Your task to perform on an android device: Go to Yahoo.com Image 0: 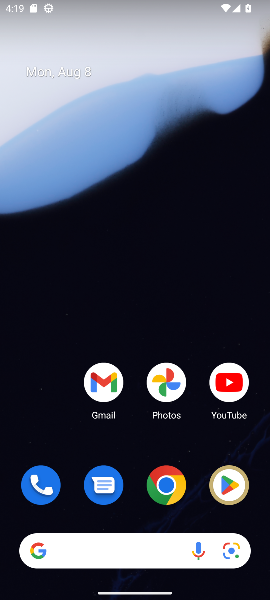
Step 0: drag from (134, 565) to (89, 249)
Your task to perform on an android device: Go to Yahoo.com Image 1: 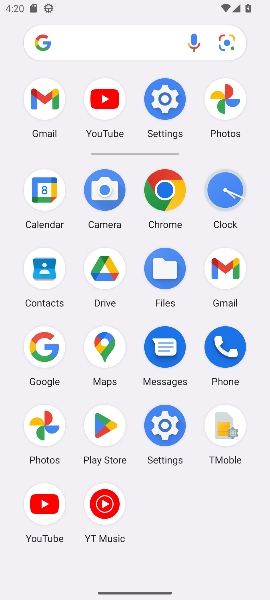
Step 1: click (167, 186)
Your task to perform on an android device: Go to Yahoo.com Image 2: 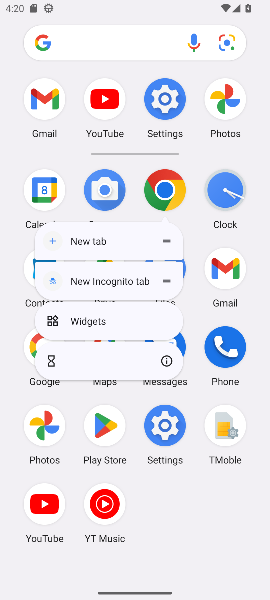
Step 2: click (167, 187)
Your task to perform on an android device: Go to Yahoo.com Image 3: 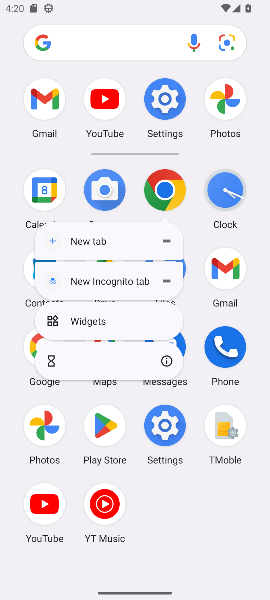
Step 3: click (90, 236)
Your task to perform on an android device: Go to Yahoo.com Image 4: 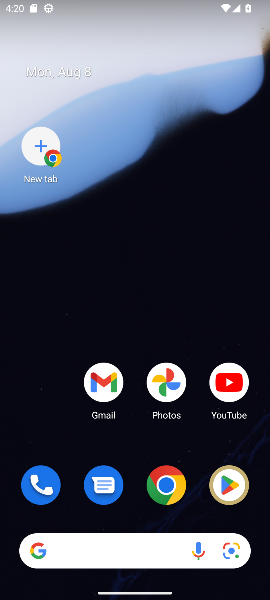
Step 4: drag from (143, 481) to (95, 127)
Your task to perform on an android device: Go to Yahoo.com Image 5: 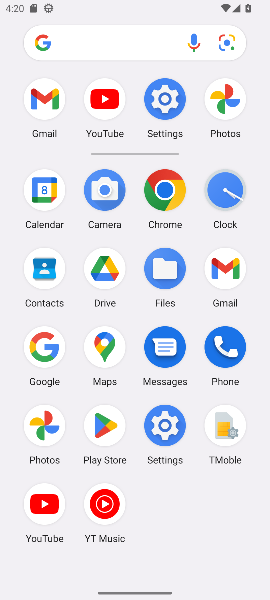
Step 5: click (174, 191)
Your task to perform on an android device: Go to Yahoo.com Image 6: 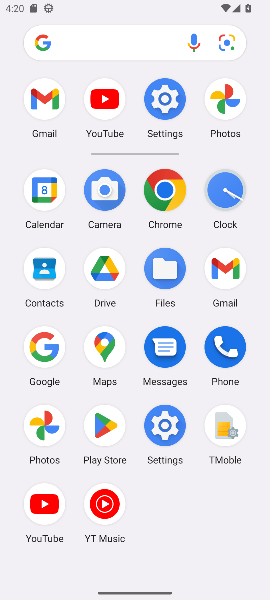
Step 6: click (174, 191)
Your task to perform on an android device: Go to Yahoo.com Image 7: 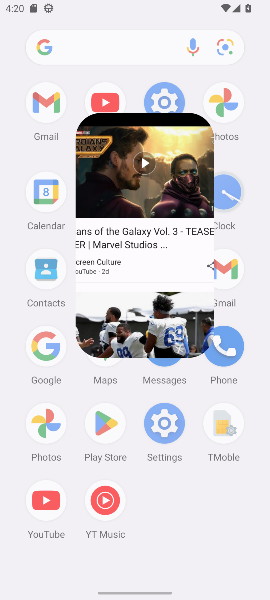
Step 7: click (174, 184)
Your task to perform on an android device: Go to Yahoo.com Image 8: 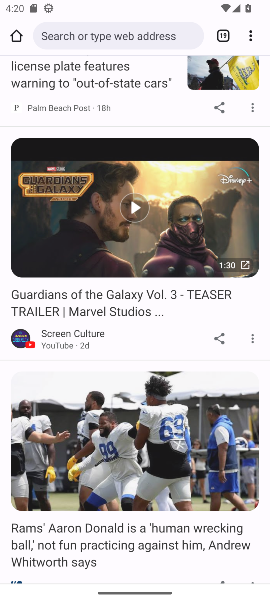
Step 8: click (184, 187)
Your task to perform on an android device: Go to Yahoo.com Image 9: 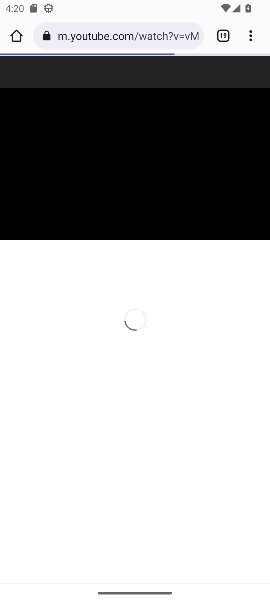
Step 9: click (241, 34)
Your task to perform on an android device: Go to Yahoo.com Image 10: 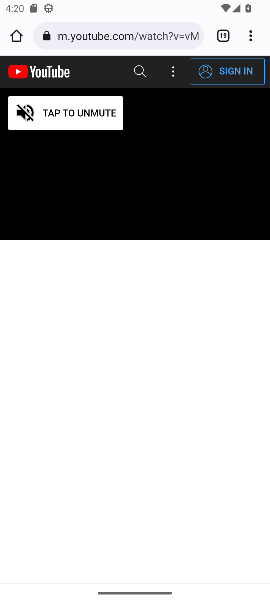
Step 10: click (254, 33)
Your task to perform on an android device: Go to Yahoo.com Image 11: 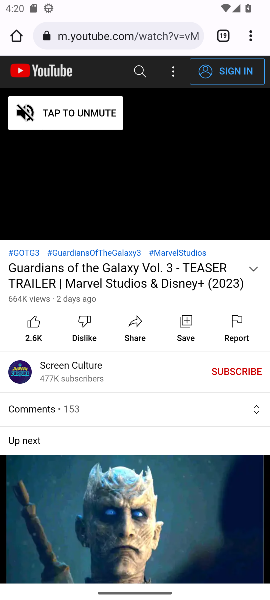
Step 11: drag from (249, 40) to (133, 67)
Your task to perform on an android device: Go to Yahoo.com Image 12: 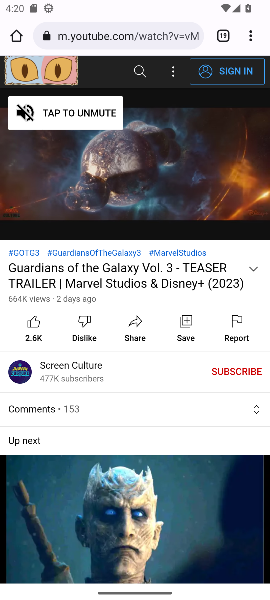
Step 12: click (135, 65)
Your task to perform on an android device: Go to Yahoo.com Image 13: 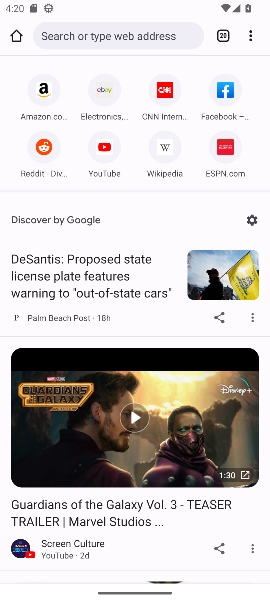
Step 13: drag from (124, 114) to (105, 372)
Your task to perform on an android device: Go to Yahoo.com Image 14: 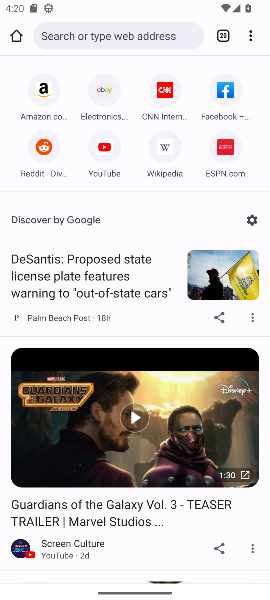
Step 14: click (68, 26)
Your task to perform on an android device: Go to Yahoo.com Image 15: 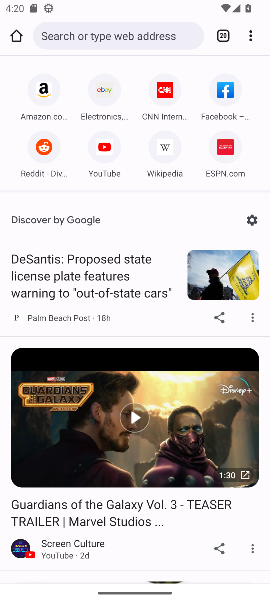
Step 15: click (67, 39)
Your task to perform on an android device: Go to Yahoo.com Image 16: 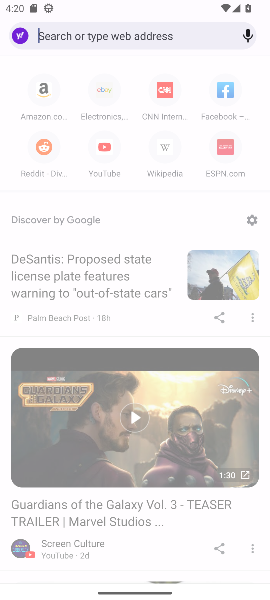
Step 16: click (68, 39)
Your task to perform on an android device: Go to Yahoo.com Image 17: 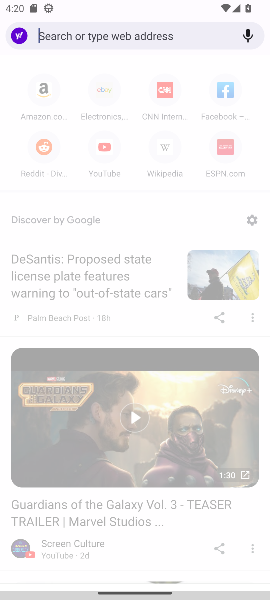
Step 17: click (71, 42)
Your task to perform on an android device: Go to Yahoo.com Image 18: 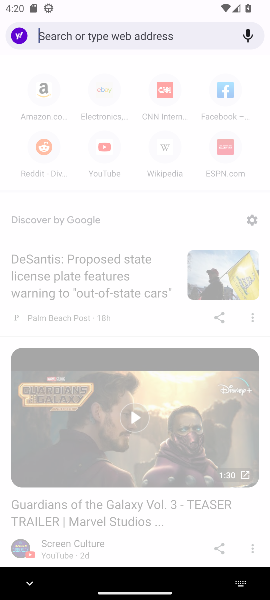
Step 18: type "yahoo.com"
Your task to perform on an android device: Go to Yahoo.com Image 19: 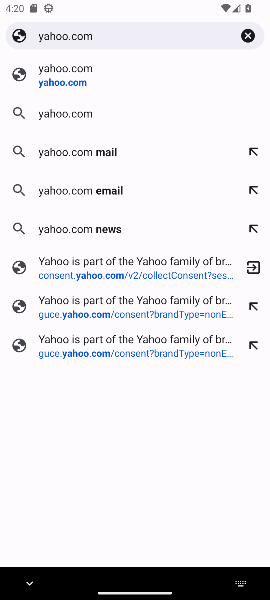
Step 19: click (62, 94)
Your task to perform on an android device: Go to Yahoo.com Image 20: 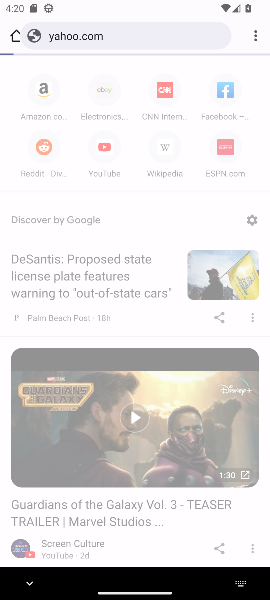
Step 20: click (64, 82)
Your task to perform on an android device: Go to Yahoo.com Image 21: 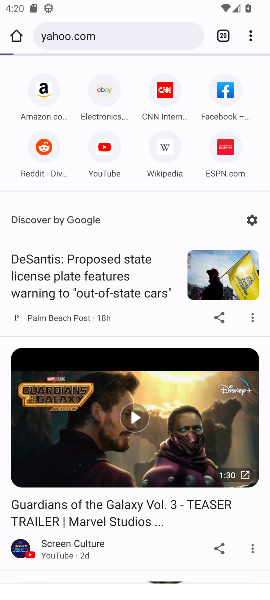
Step 21: click (79, 83)
Your task to perform on an android device: Go to Yahoo.com Image 22: 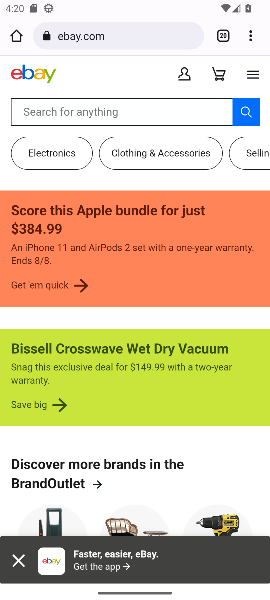
Step 22: task complete